Your task to perform on an android device: Go to eBay Image 0: 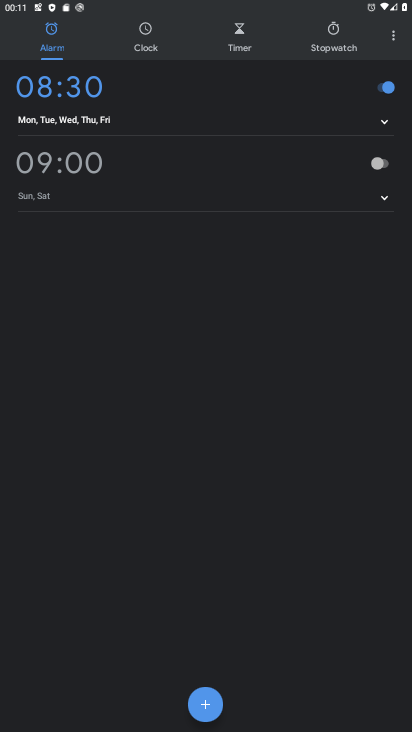
Step 0: press home button
Your task to perform on an android device: Go to eBay Image 1: 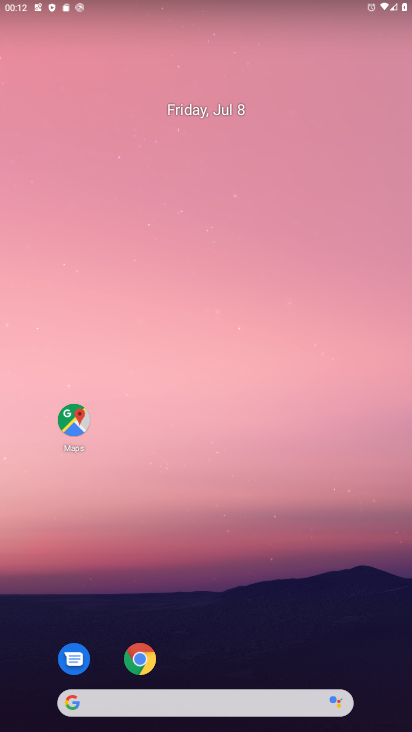
Step 1: click (147, 654)
Your task to perform on an android device: Go to eBay Image 2: 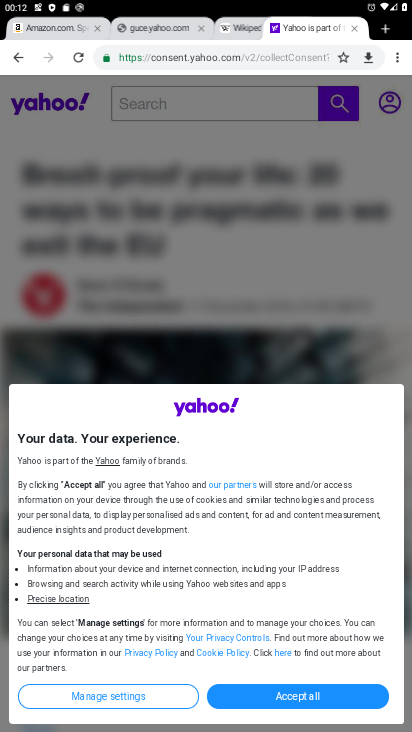
Step 2: click (383, 26)
Your task to perform on an android device: Go to eBay Image 3: 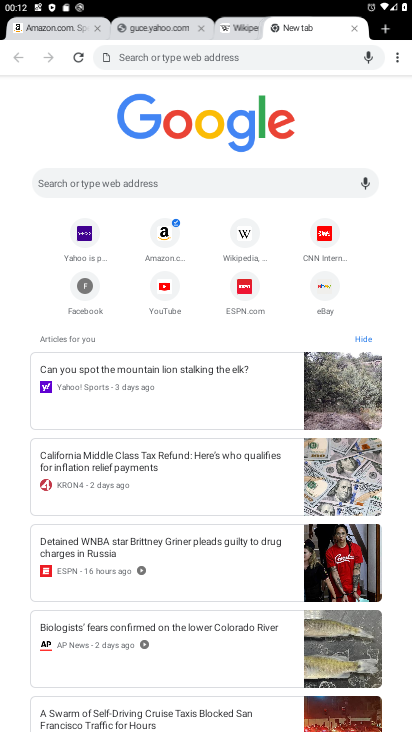
Step 3: click (325, 289)
Your task to perform on an android device: Go to eBay Image 4: 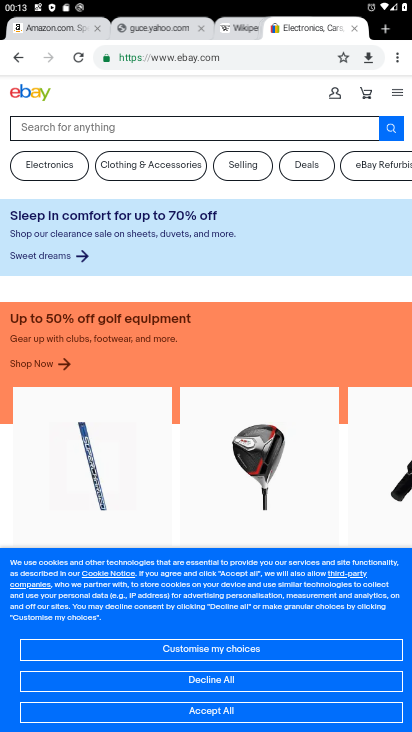
Step 4: task complete